Your task to perform on an android device: Open eBay Image 0: 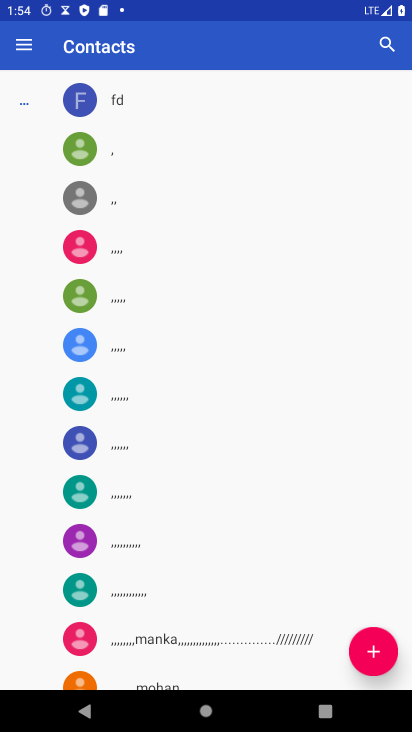
Step 0: task complete